Your task to perform on an android device: What's the latest tech news? Image 0: 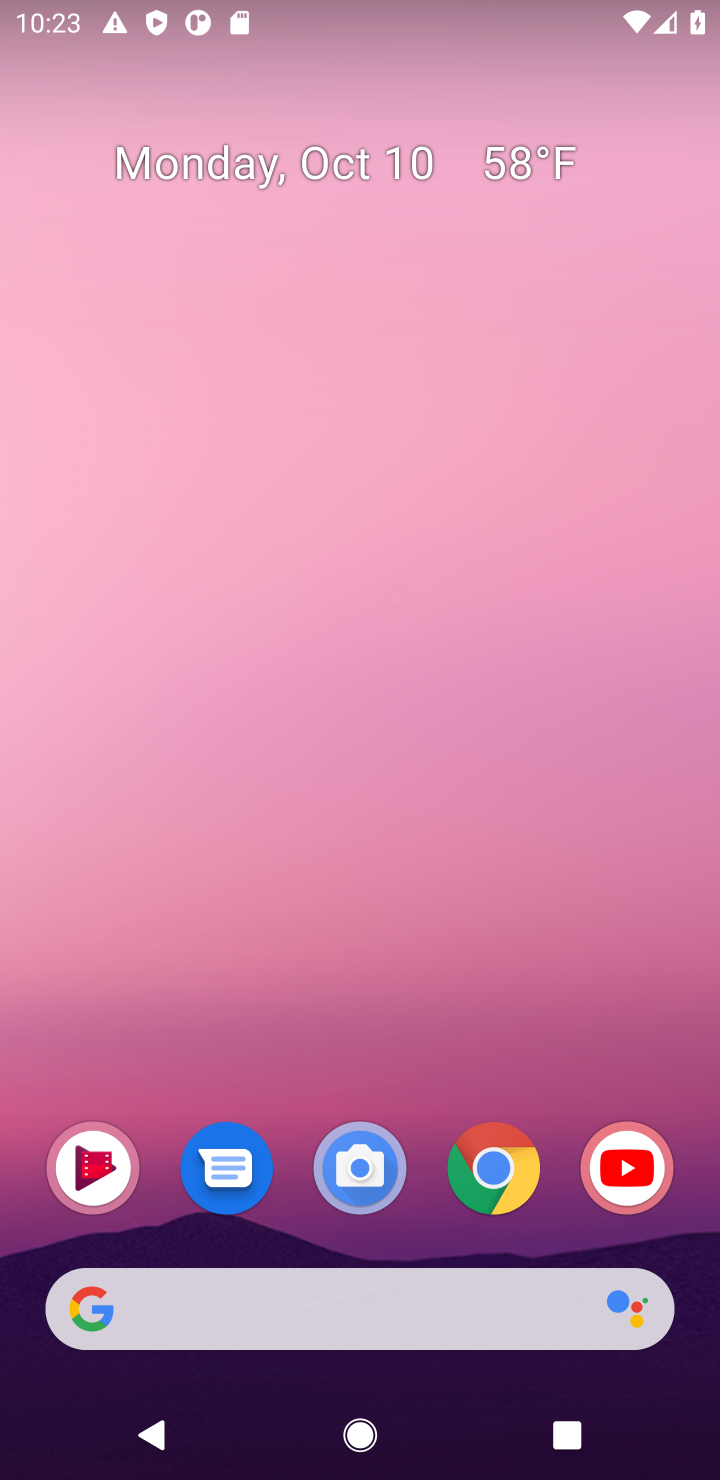
Step 0: click (598, 1157)
Your task to perform on an android device: What's the latest tech news? Image 1: 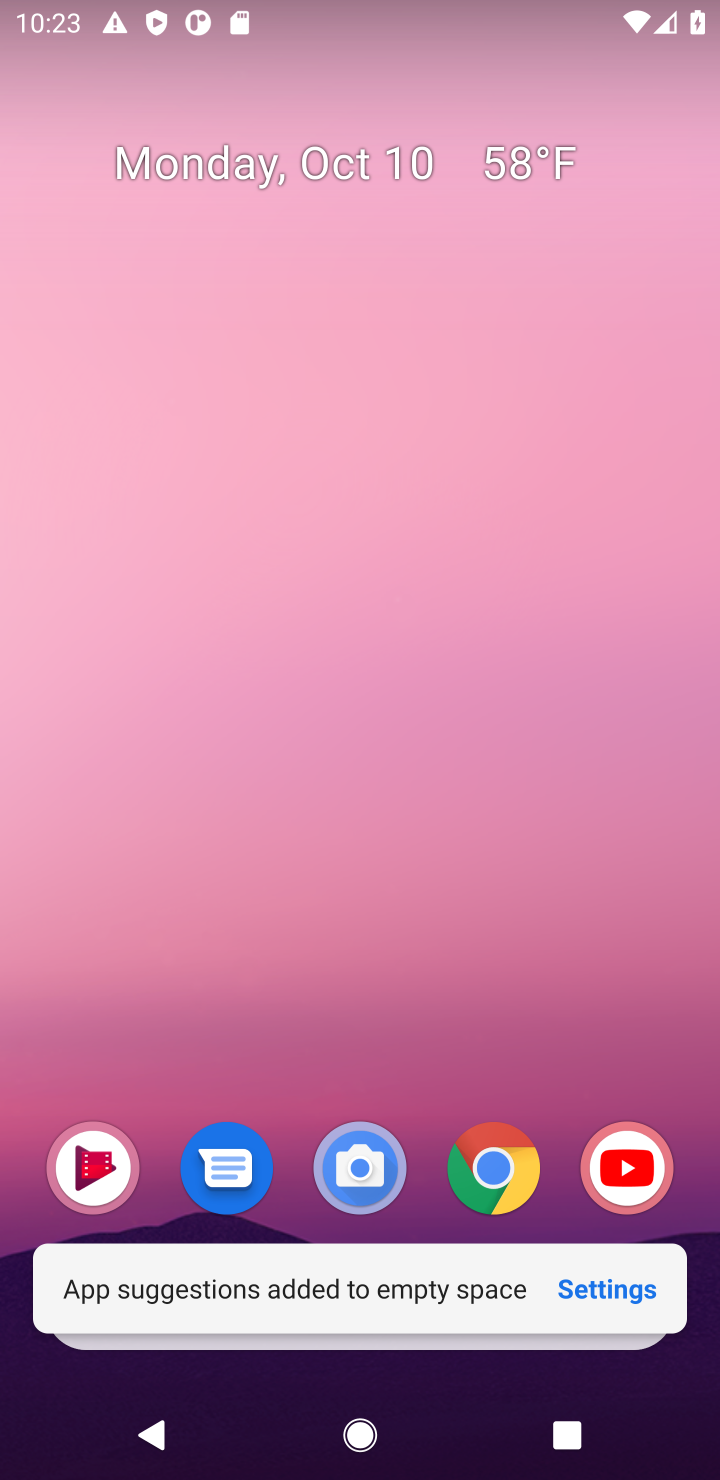
Step 1: click (603, 1178)
Your task to perform on an android device: What's the latest tech news? Image 2: 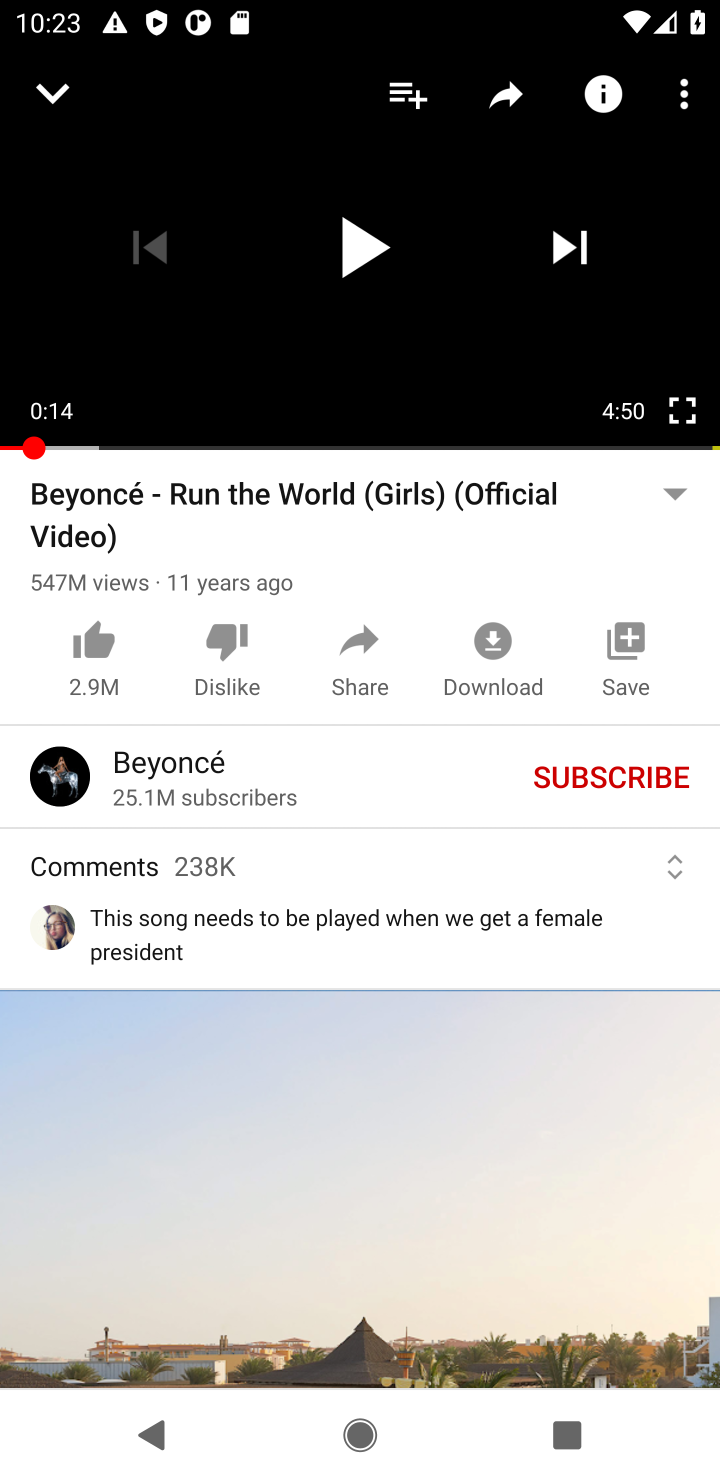
Step 2: drag from (310, 252) to (470, 1296)
Your task to perform on an android device: What's the latest tech news? Image 3: 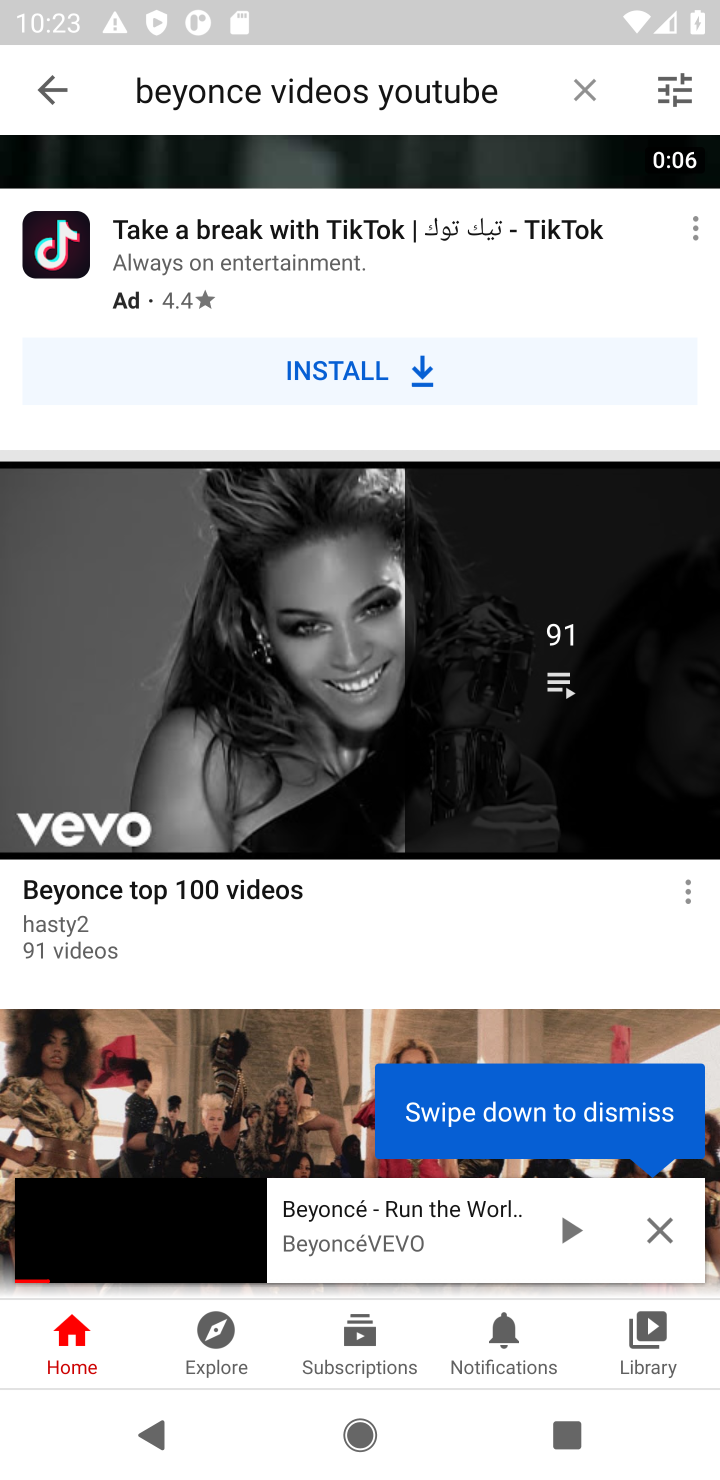
Step 3: click (643, 1242)
Your task to perform on an android device: What's the latest tech news? Image 4: 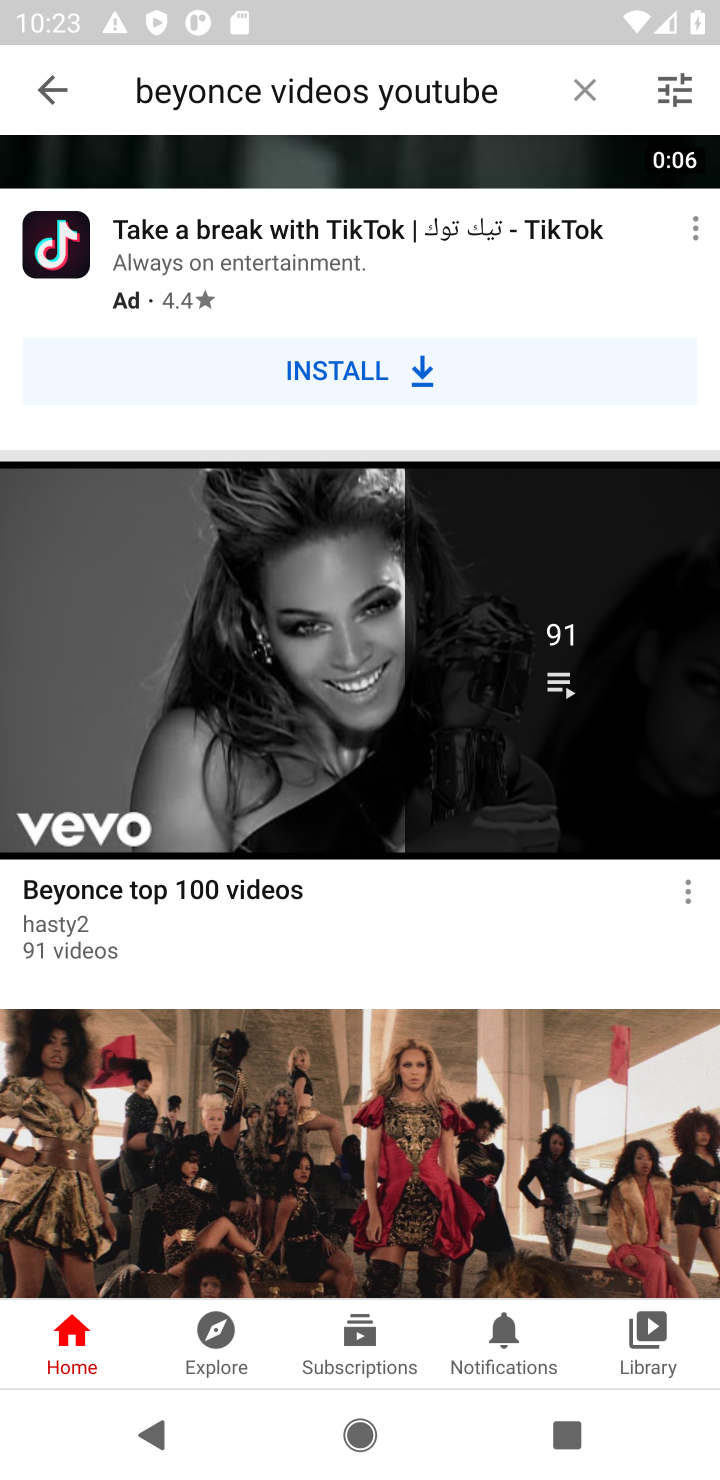
Step 4: click (571, 92)
Your task to perform on an android device: What's the latest tech news? Image 5: 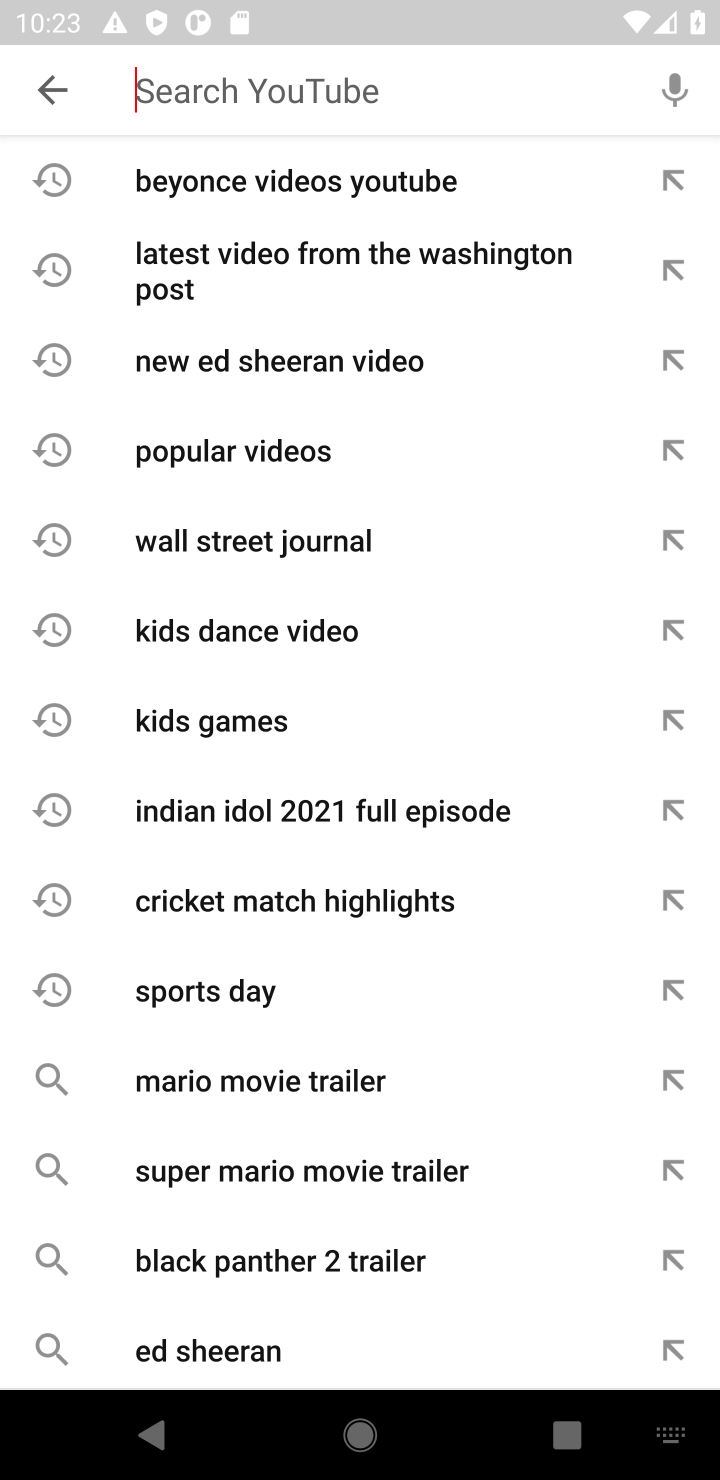
Step 5: type "latest tech news"
Your task to perform on an android device: What's the latest tech news? Image 6: 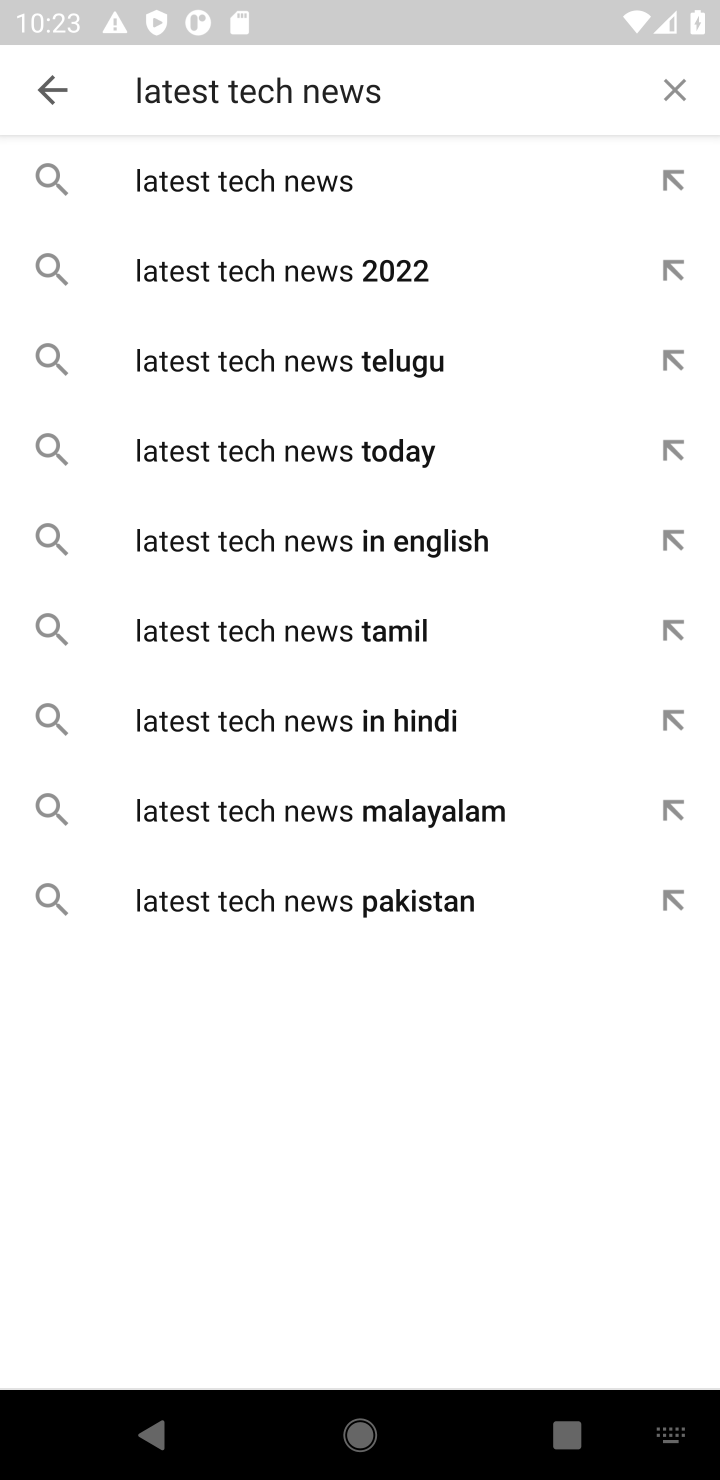
Step 6: type ""
Your task to perform on an android device: What's the latest tech news? Image 7: 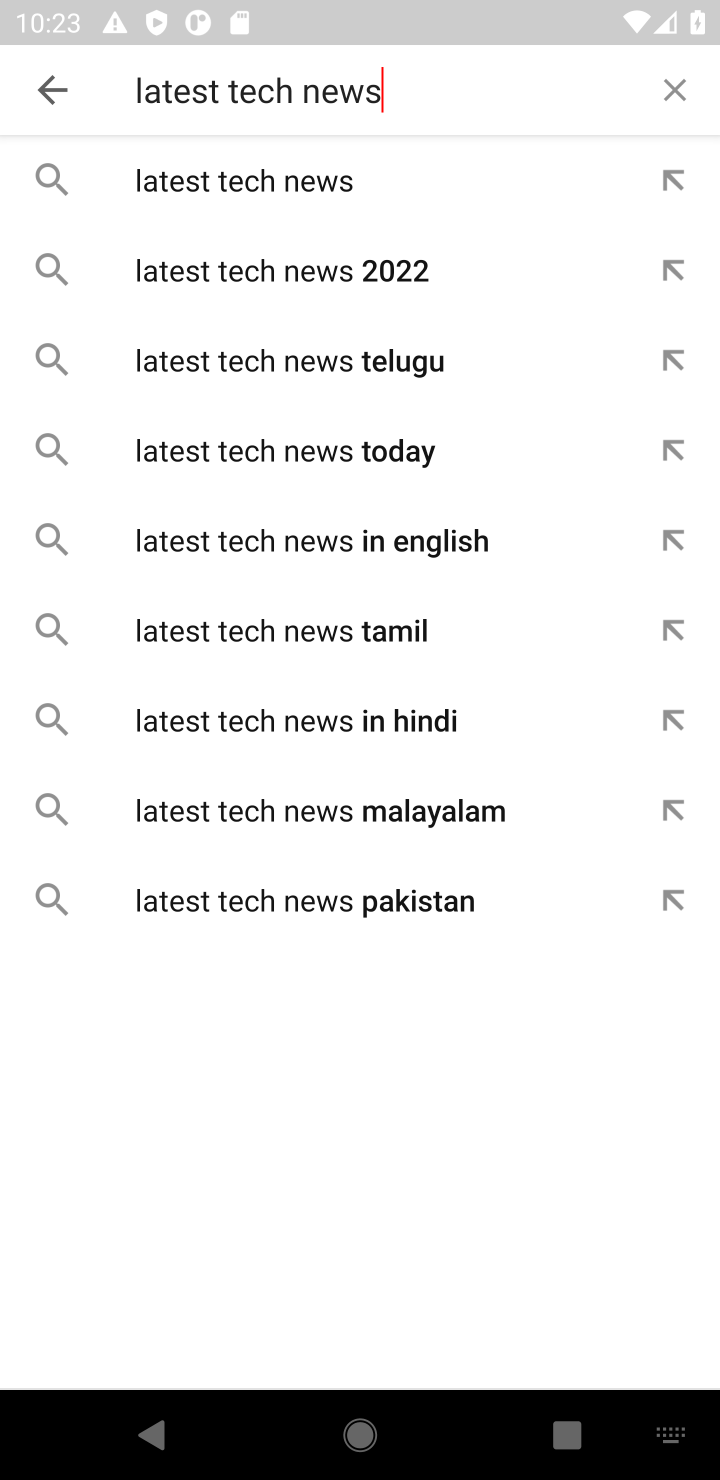
Step 7: click (366, 186)
Your task to perform on an android device: What's the latest tech news? Image 8: 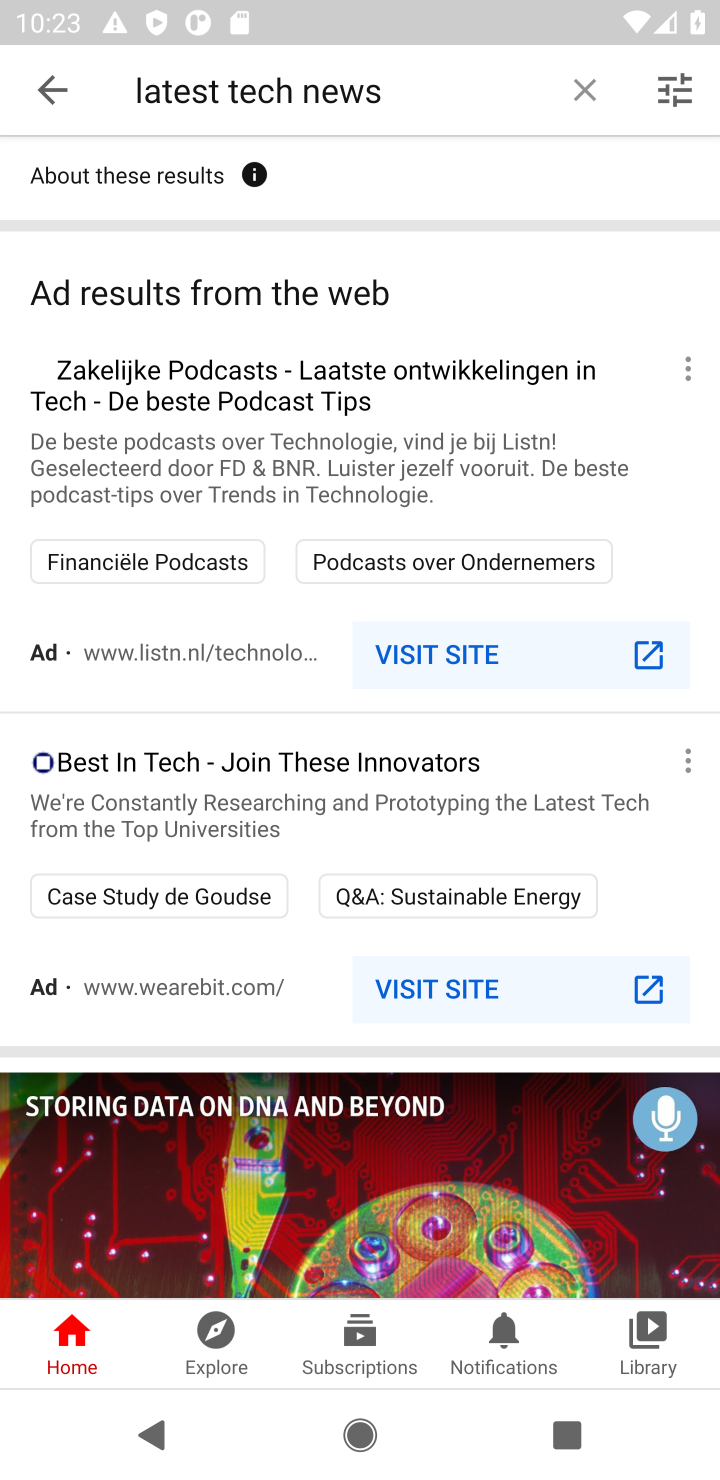
Step 8: drag from (351, 963) to (456, 201)
Your task to perform on an android device: What's the latest tech news? Image 9: 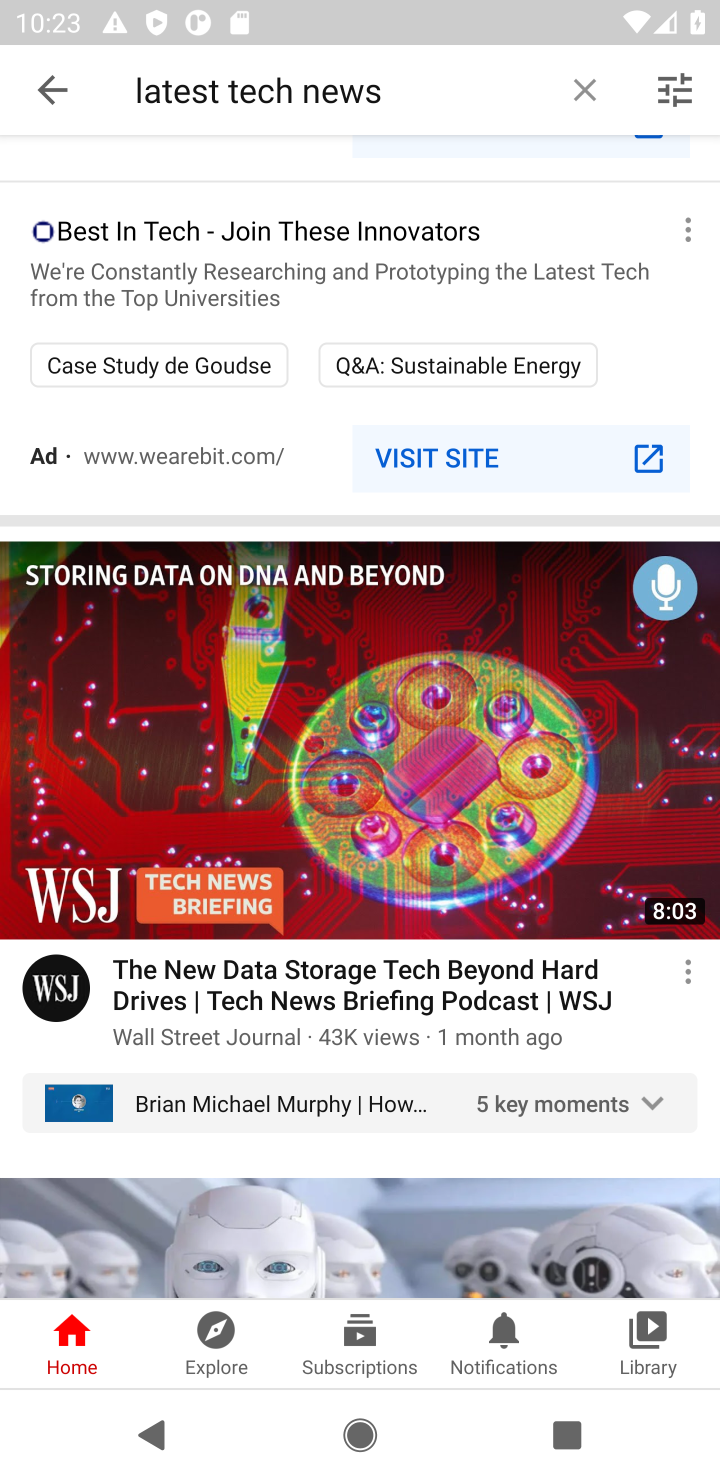
Step 9: drag from (402, 930) to (486, 464)
Your task to perform on an android device: What's the latest tech news? Image 10: 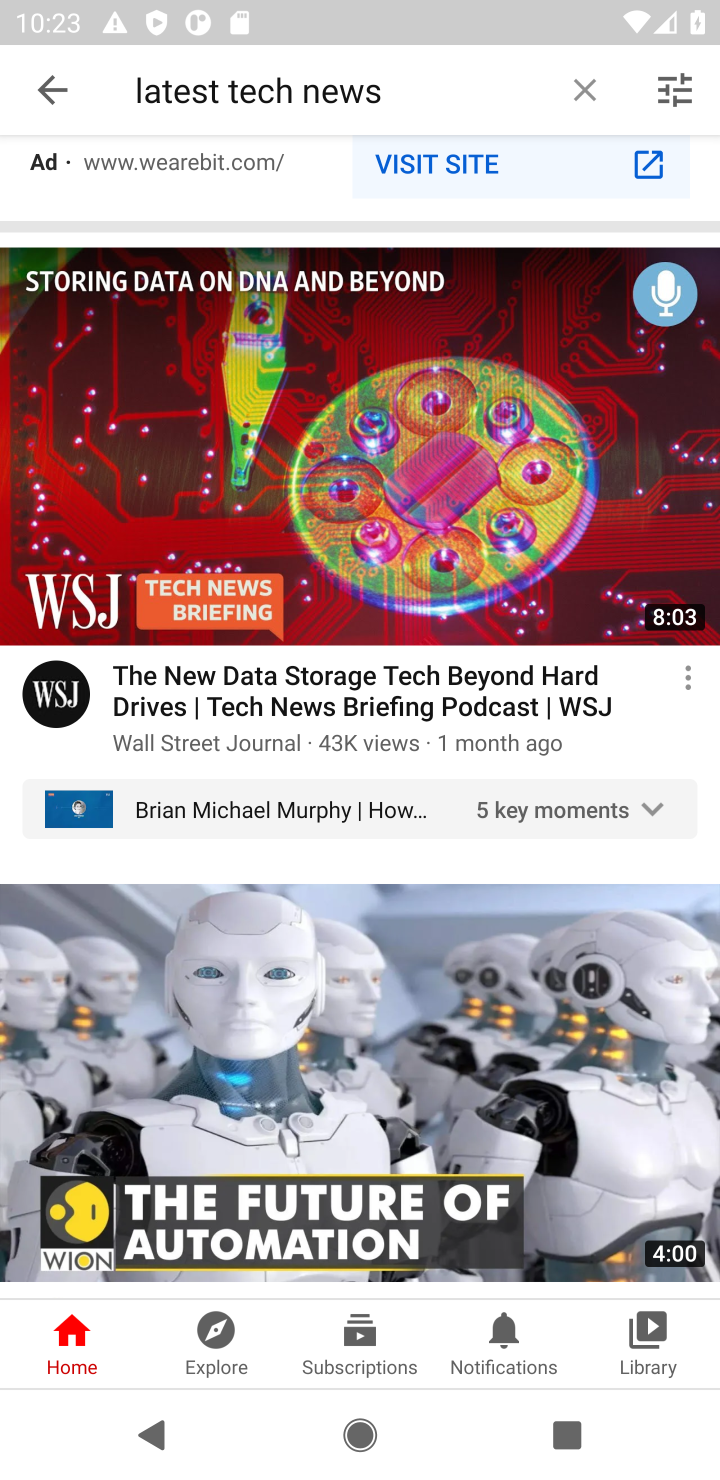
Step 10: drag from (457, 908) to (477, 425)
Your task to perform on an android device: What's the latest tech news? Image 11: 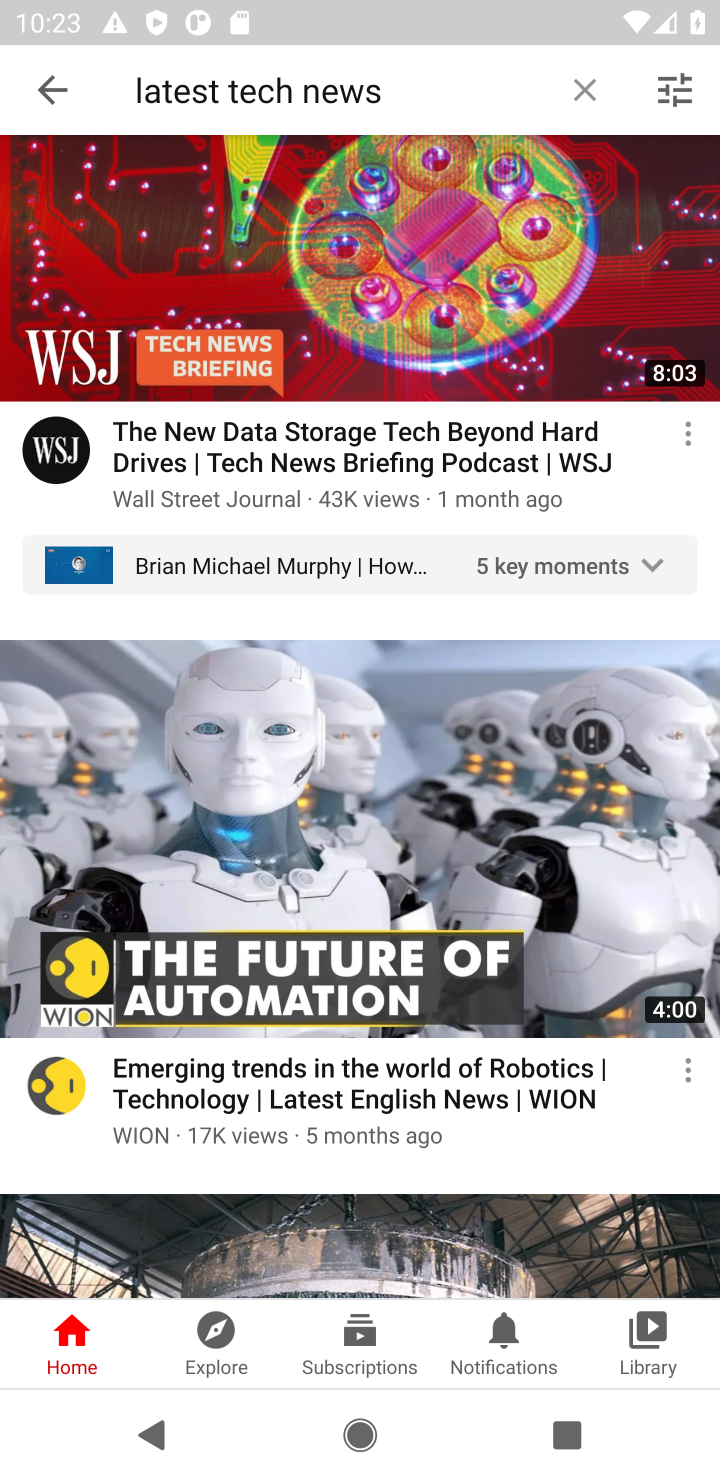
Step 11: click (314, 881)
Your task to perform on an android device: What's the latest tech news? Image 12: 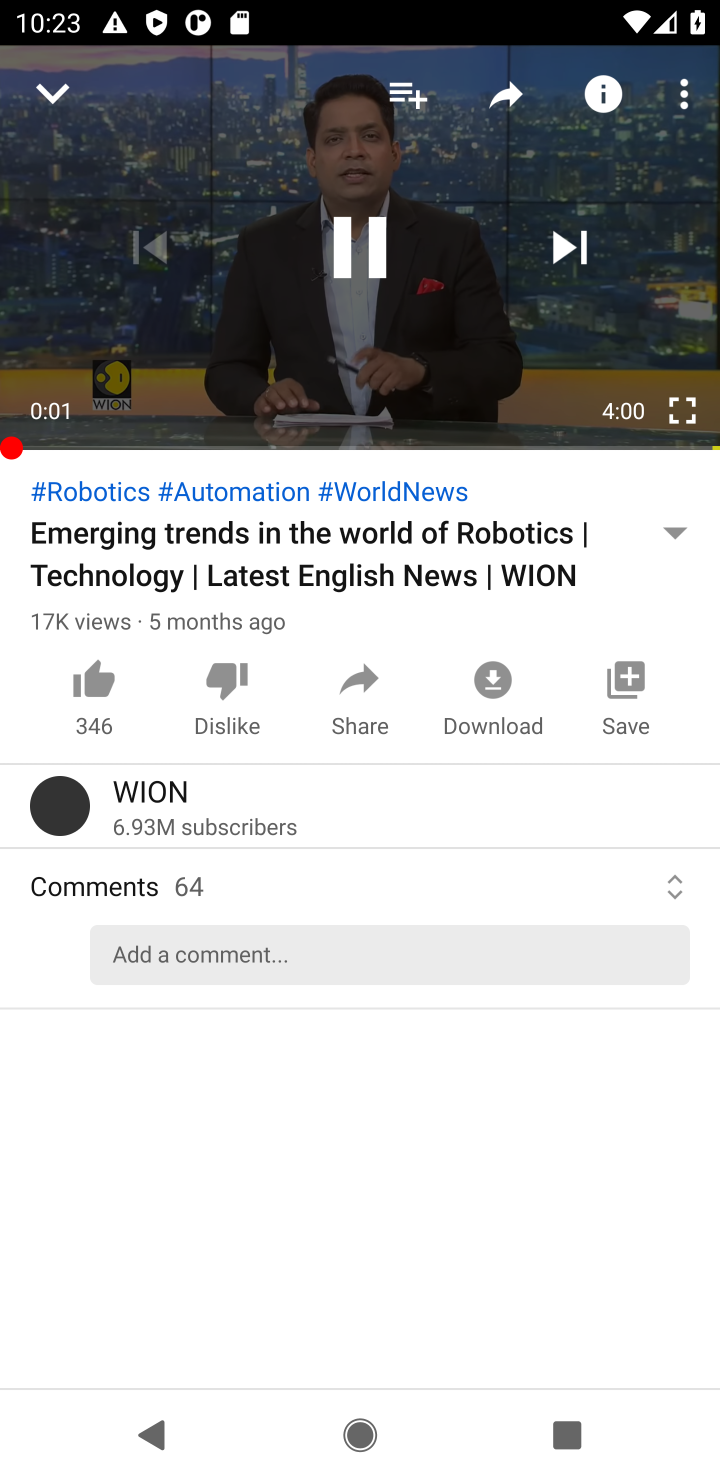
Step 12: click (362, 271)
Your task to perform on an android device: What's the latest tech news? Image 13: 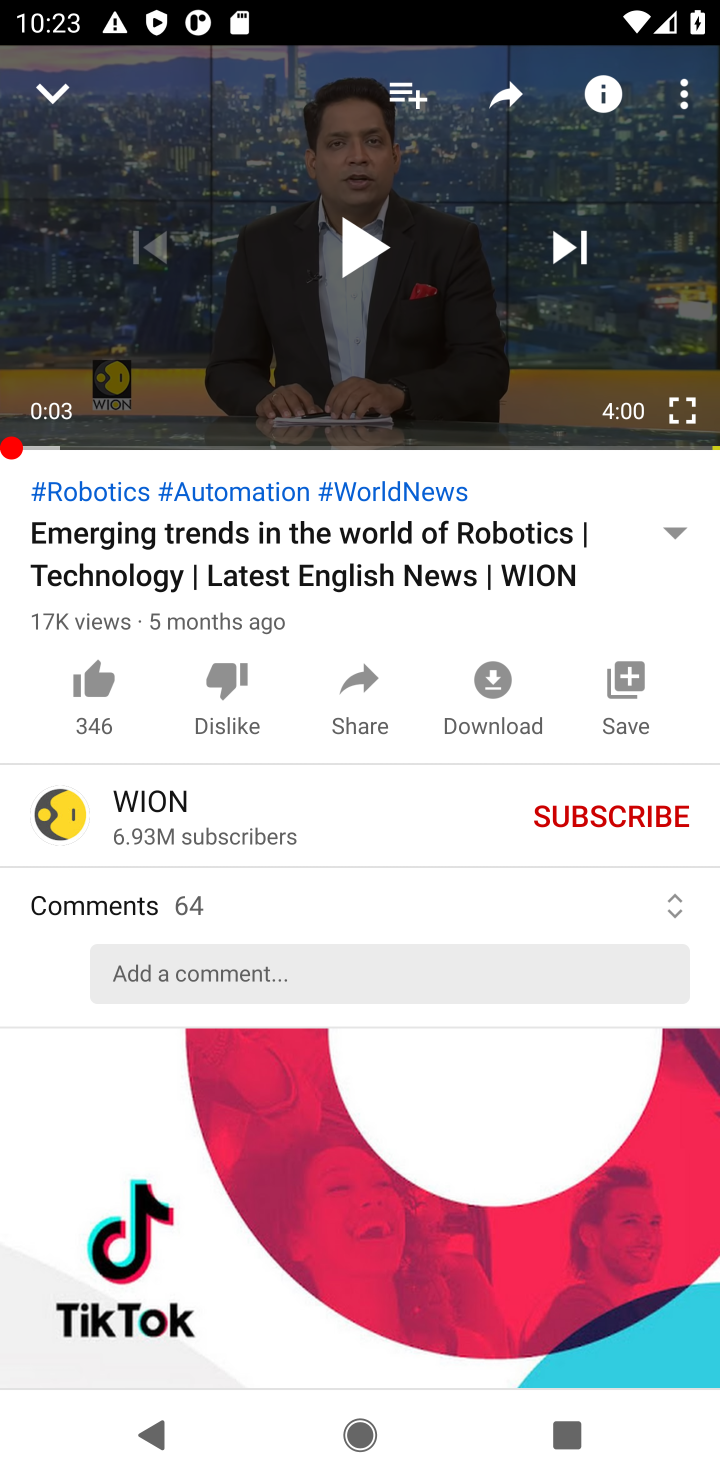
Step 13: task complete